Your task to perform on an android device: check google app version Image 0: 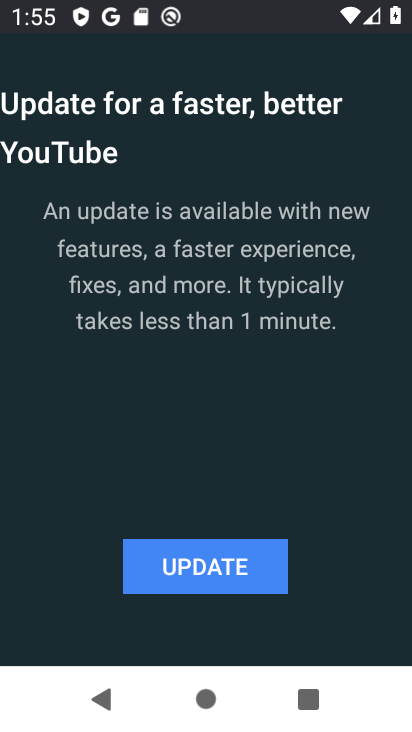
Step 0: press back button
Your task to perform on an android device: check google app version Image 1: 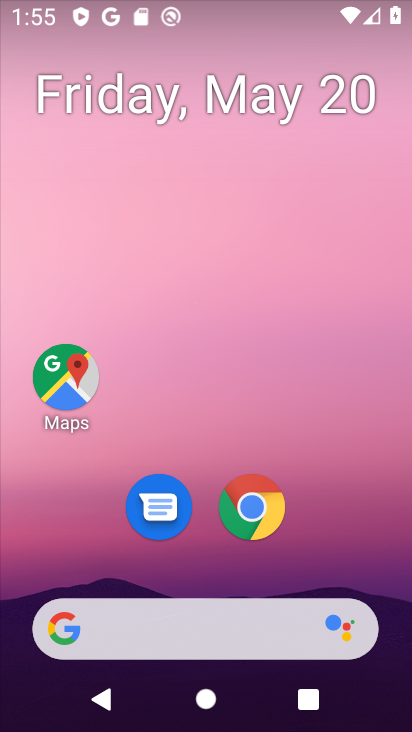
Step 1: drag from (310, 556) to (254, 30)
Your task to perform on an android device: check google app version Image 2: 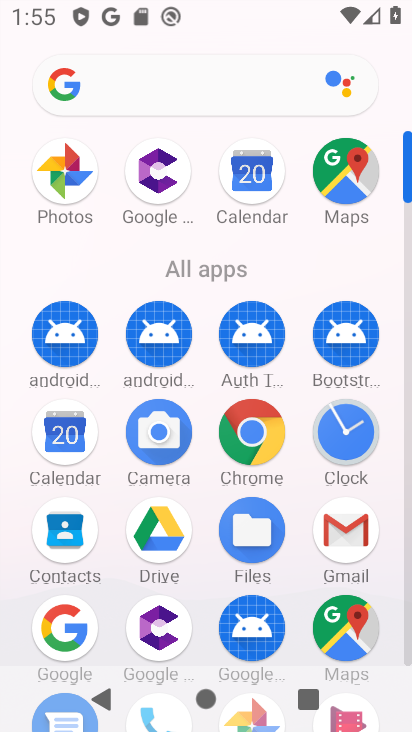
Step 2: click (55, 622)
Your task to perform on an android device: check google app version Image 3: 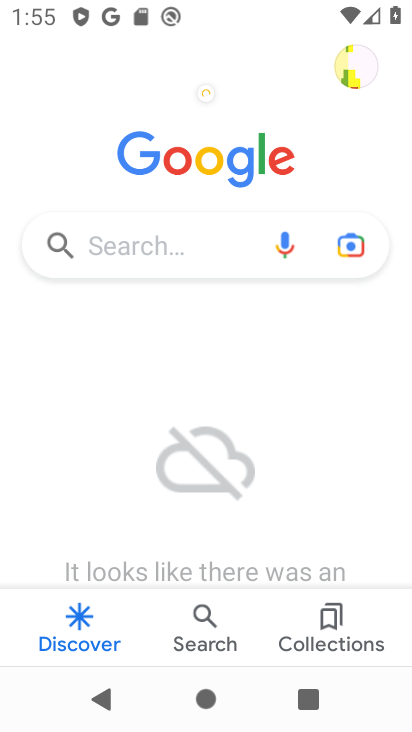
Step 3: click (356, 79)
Your task to perform on an android device: check google app version Image 4: 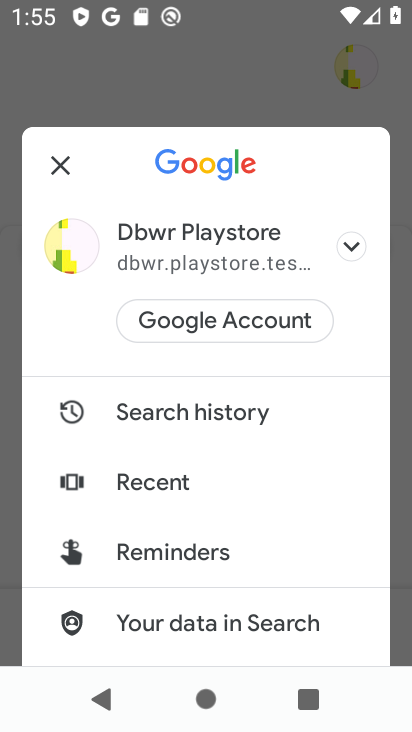
Step 4: drag from (184, 555) to (221, 209)
Your task to perform on an android device: check google app version Image 5: 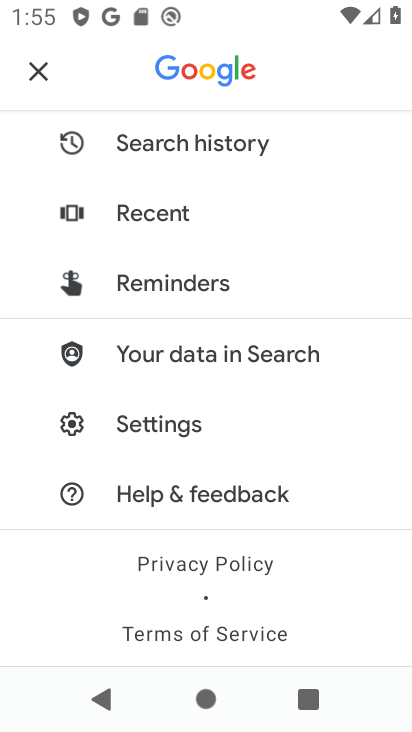
Step 5: click (144, 423)
Your task to perform on an android device: check google app version Image 6: 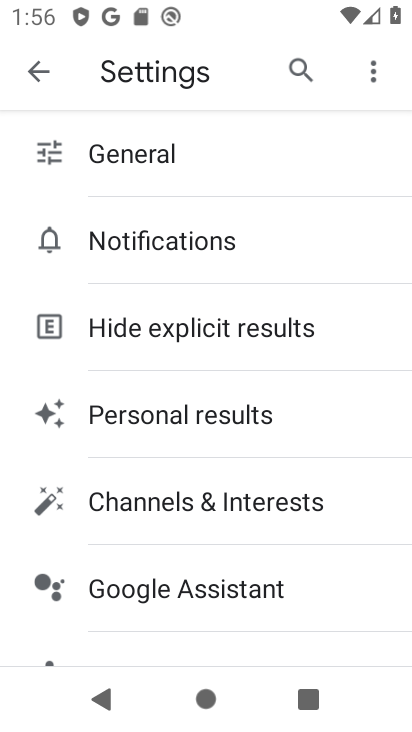
Step 6: drag from (224, 586) to (202, 263)
Your task to perform on an android device: check google app version Image 7: 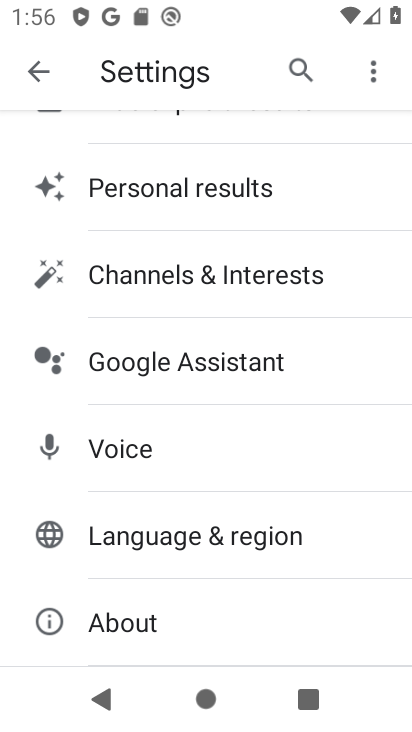
Step 7: click (191, 621)
Your task to perform on an android device: check google app version Image 8: 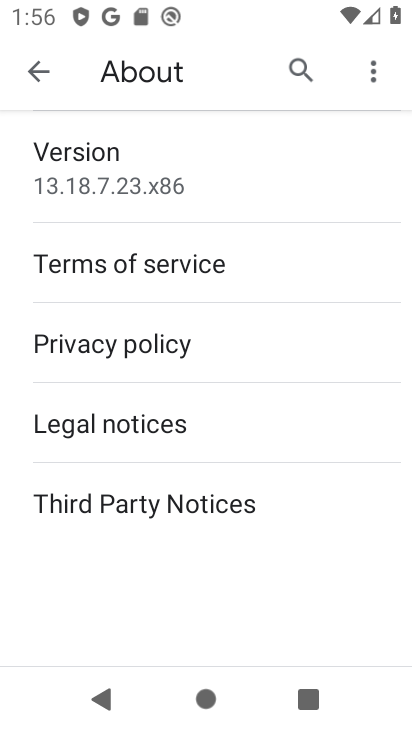
Step 8: click (91, 152)
Your task to perform on an android device: check google app version Image 9: 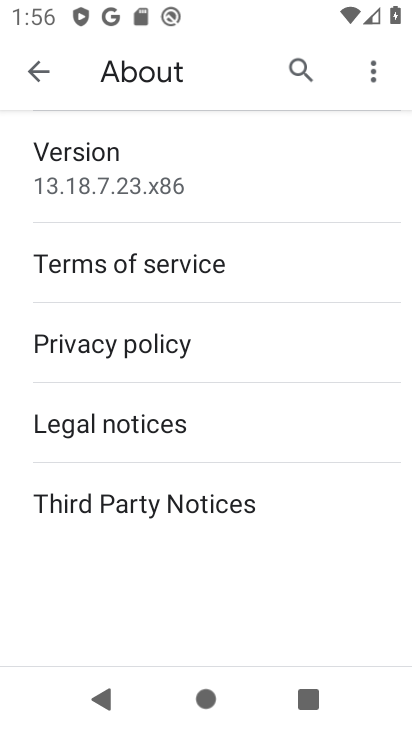
Step 9: task complete